Your task to perform on an android device: What's on my calendar today? Image 0: 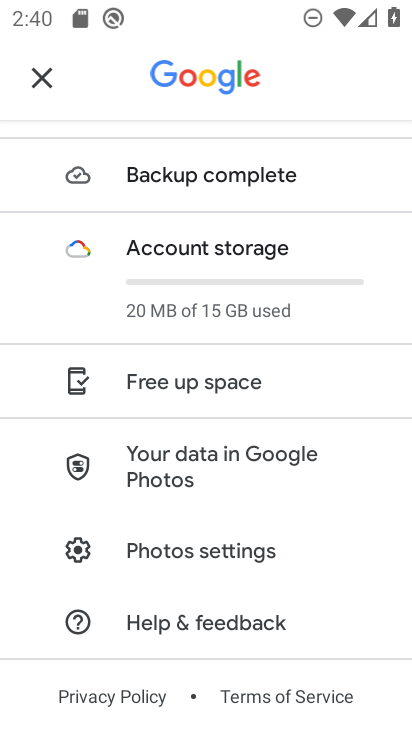
Step 0: press home button
Your task to perform on an android device: What's on my calendar today? Image 1: 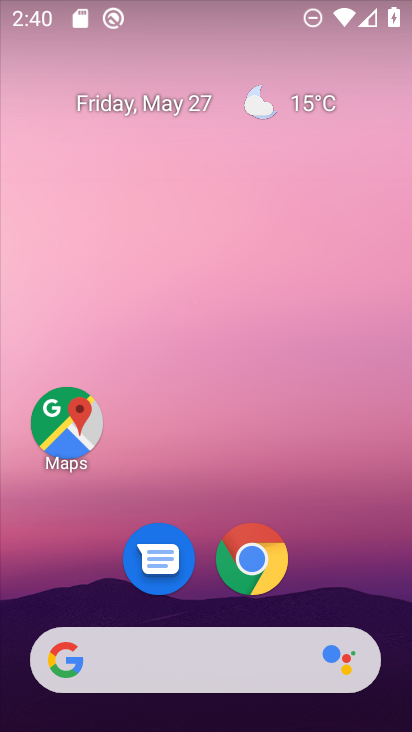
Step 1: drag from (318, 684) to (344, 11)
Your task to perform on an android device: What's on my calendar today? Image 2: 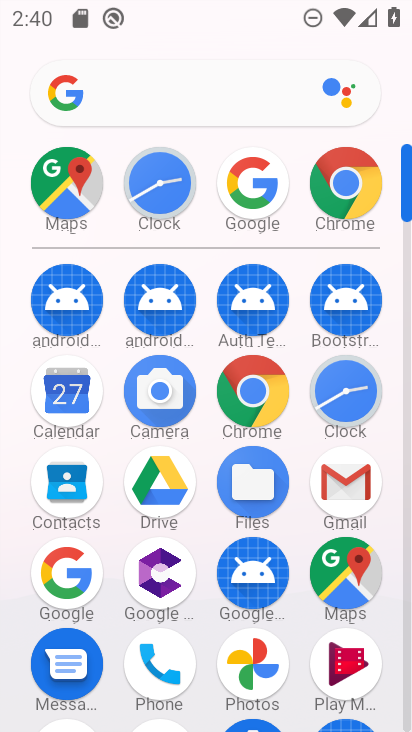
Step 2: click (74, 391)
Your task to perform on an android device: What's on my calendar today? Image 3: 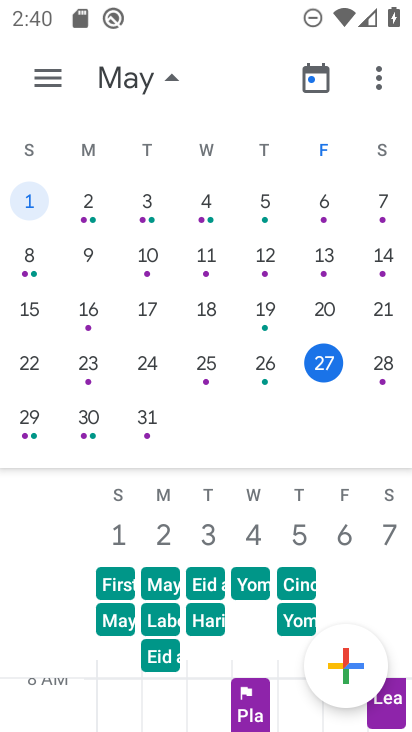
Step 3: click (312, 362)
Your task to perform on an android device: What's on my calendar today? Image 4: 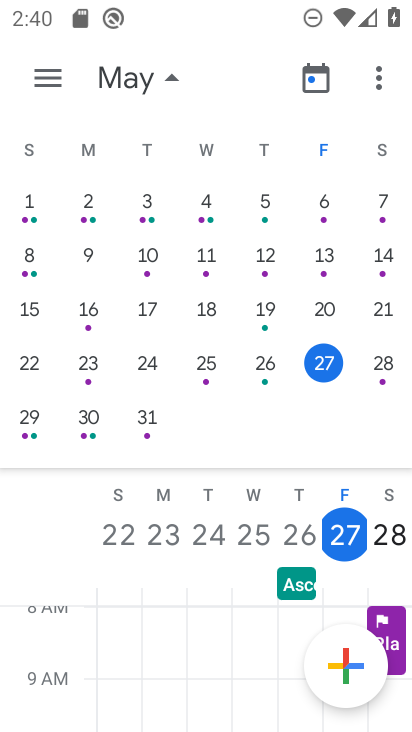
Step 4: task complete